Your task to perform on an android device: delete location history Image 0: 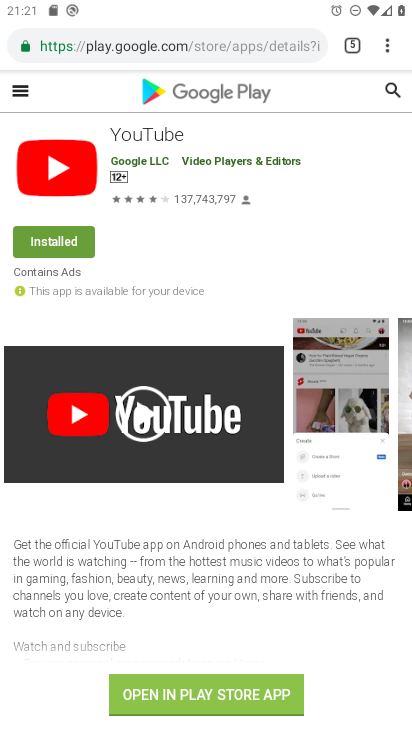
Step 0: press home button
Your task to perform on an android device: delete location history Image 1: 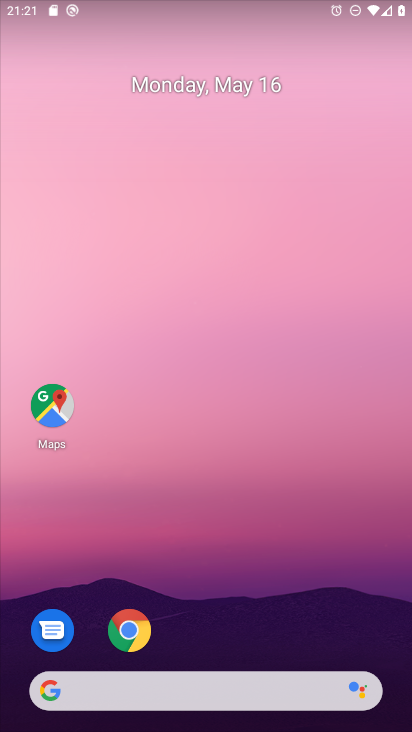
Step 1: drag from (317, 507) to (263, 55)
Your task to perform on an android device: delete location history Image 2: 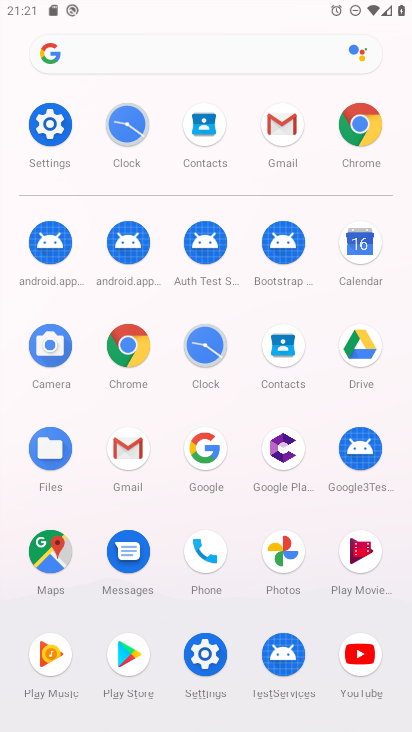
Step 2: click (55, 128)
Your task to perform on an android device: delete location history Image 3: 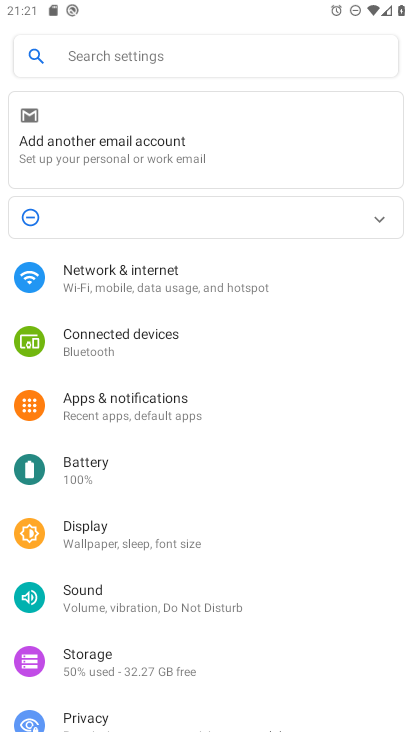
Step 3: drag from (193, 634) to (185, 295)
Your task to perform on an android device: delete location history Image 4: 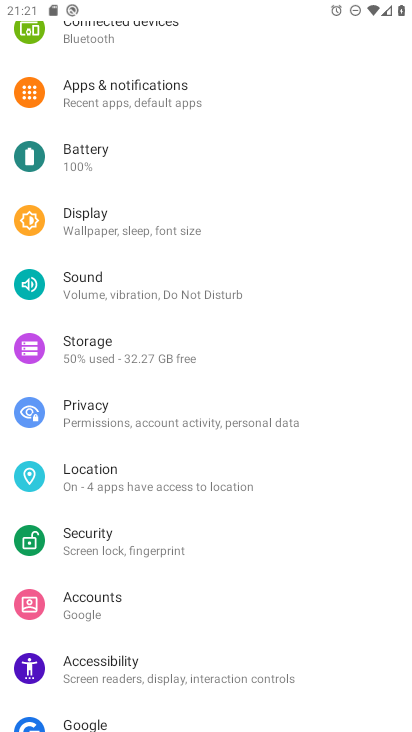
Step 4: click (169, 484)
Your task to perform on an android device: delete location history Image 5: 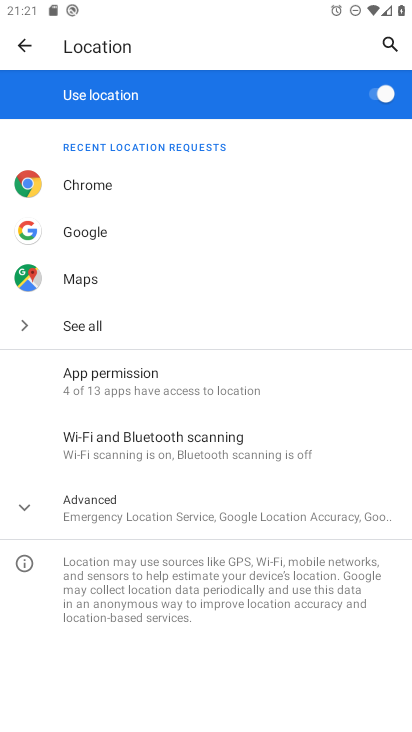
Step 5: click (186, 511)
Your task to perform on an android device: delete location history Image 6: 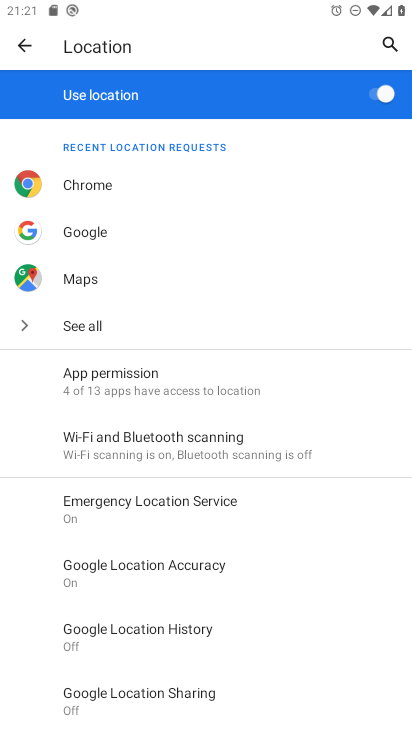
Step 6: click (186, 627)
Your task to perform on an android device: delete location history Image 7: 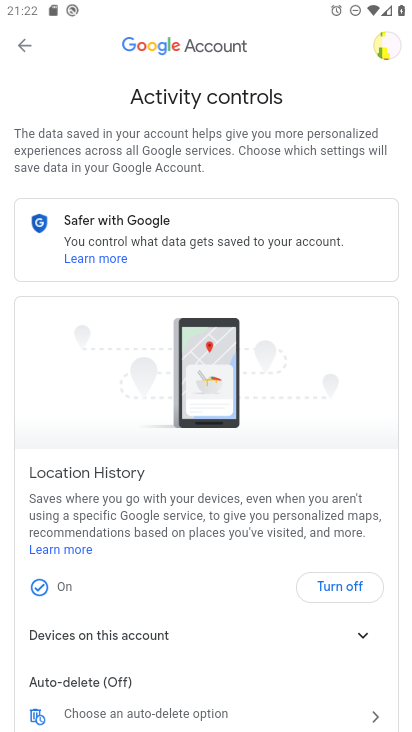
Step 7: drag from (260, 666) to (251, 141)
Your task to perform on an android device: delete location history Image 8: 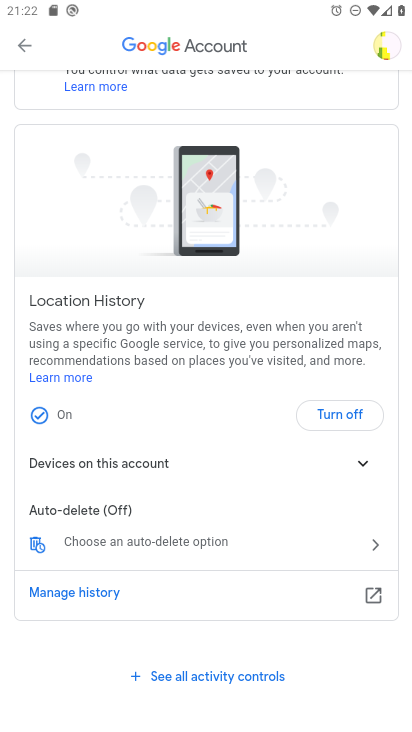
Step 8: click (375, 595)
Your task to perform on an android device: delete location history Image 9: 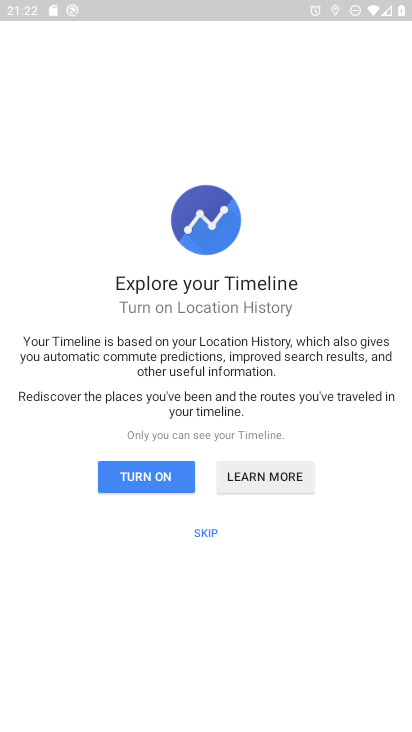
Step 9: click (206, 530)
Your task to perform on an android device: delete location history Image 10: 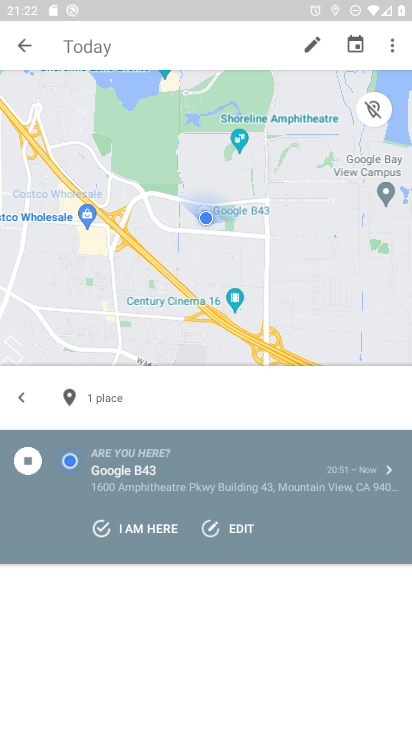
Step 10: click (394, 34)
Your task to perform on an android device: delete location history Image 11: 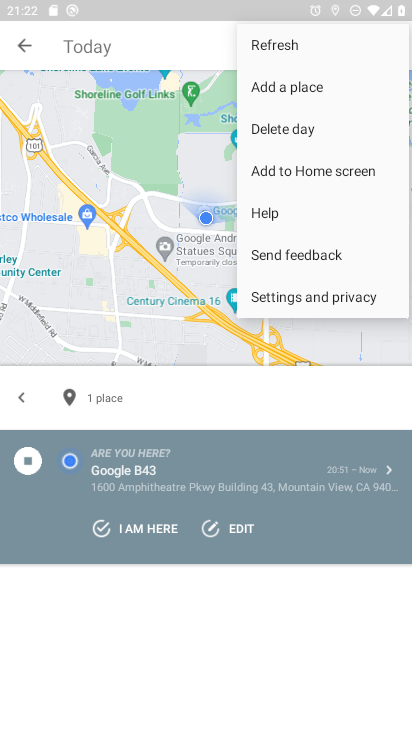
Step 11: click (300, 296)
Your task to perform on an android device: delete location history Image 12: 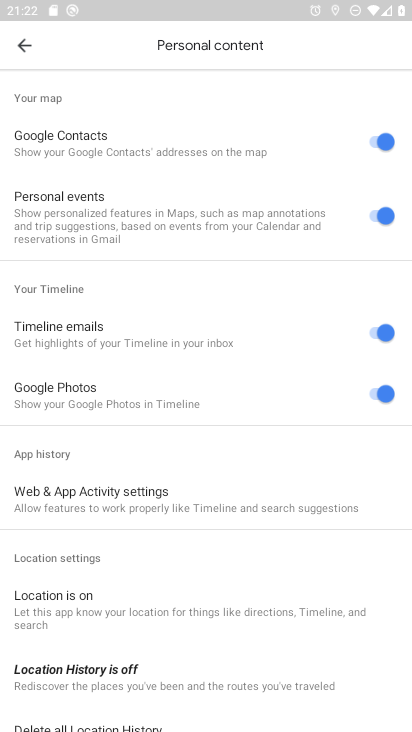
Step 12: drag from (266, 577) to (247, 93)
Your task to perform on an android device: delete location history Image 13: 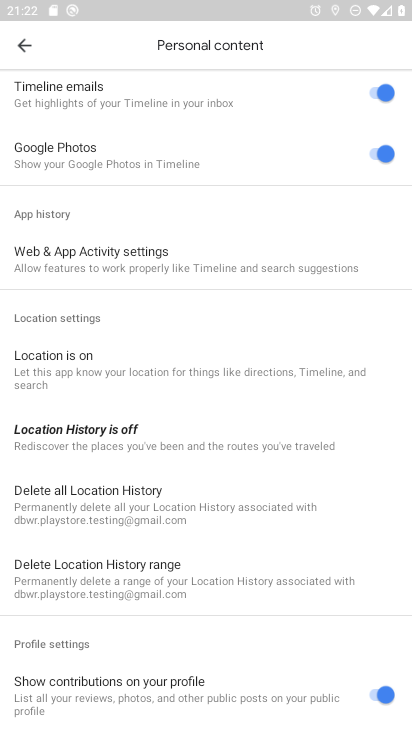
Step 13: click (161, 513)
Your task to perform on an android device: delete location history Image 14: 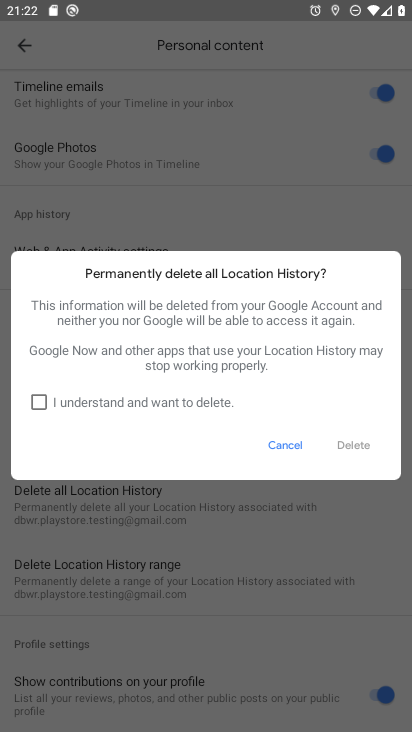
Step 14: click (35, 403)
Your task to perform on an android device: delete location history Image 15: 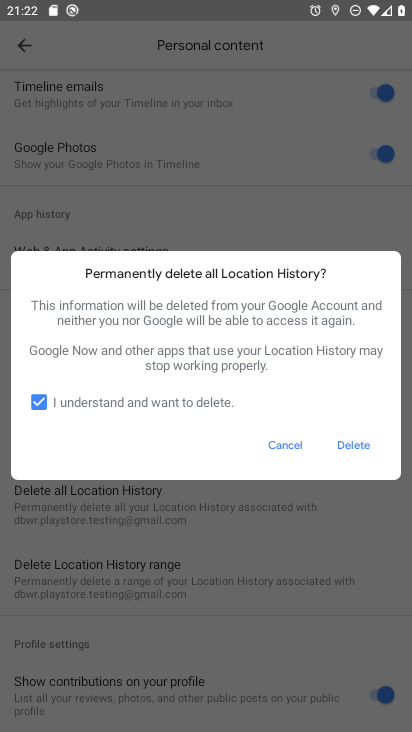
Step 15: click (359, 440)
Your task to perform on an android device: delete location history Image 16: 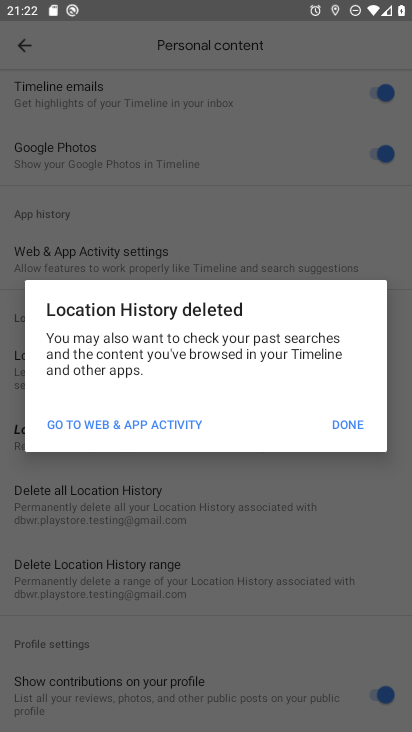
Step 16: click (346, 418)
Your task to perform on an android device: delete location history Image 17: 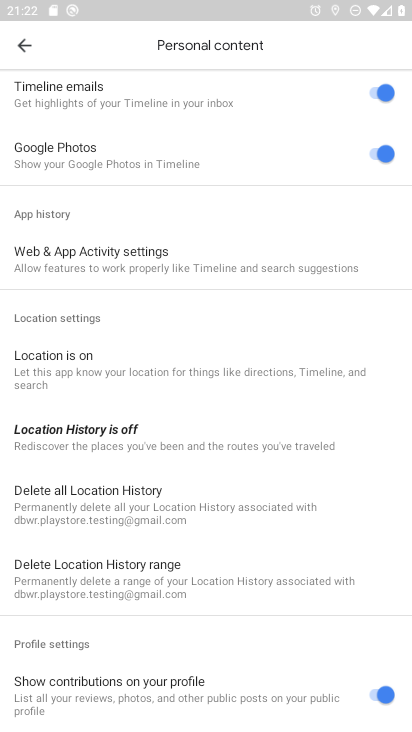
Step 17: task complete